Your task to perform on an android device: Search for vegetarian restaurants on Maps Image 0: 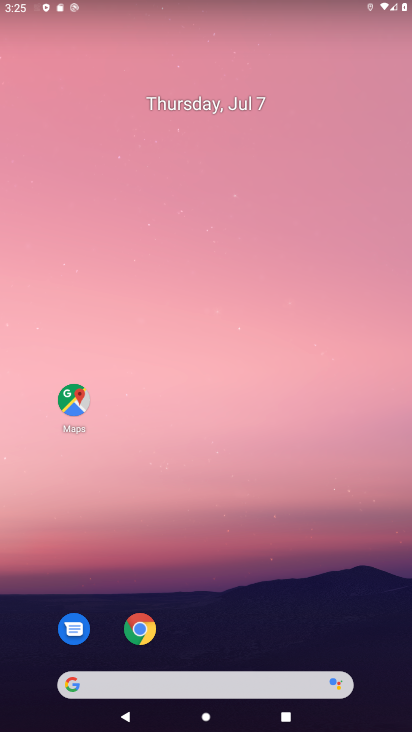
Step 0: press home button
Your task to perform on an android device: Search for vegetarian restaurants on Maps Image 1: 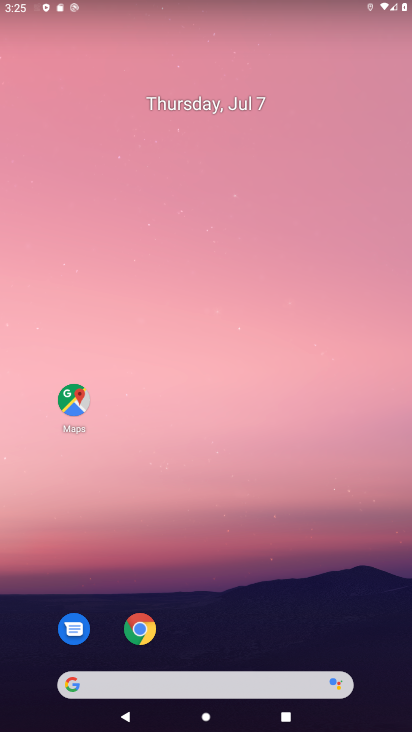
Step 1: drag from (296, 528) to (276, 20)
Your task to perform on an android device: Search for vegetarian restaurants on Maps Image 2: 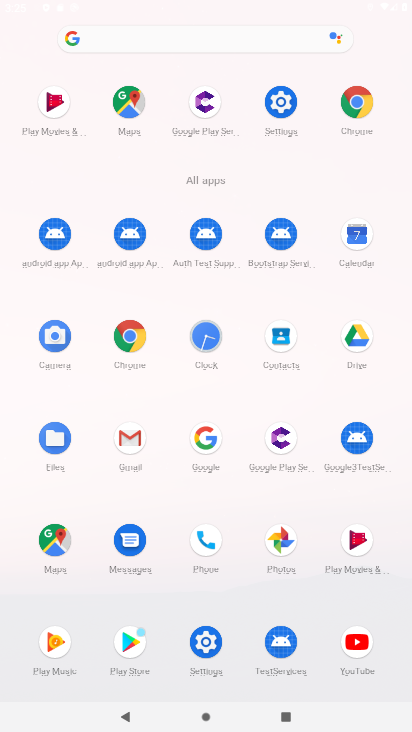
Step 2: click (127, 99)
Your task to perform on an android device: Search for vegetarian restaurants on Maps Image 3: 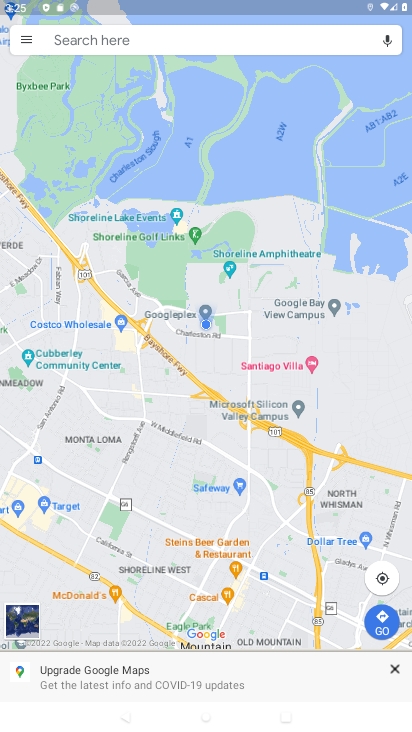
Step 3: click (161, 40)
Your task to perform on an android device: Search for vegetarian restaurants on Maps Image 4: 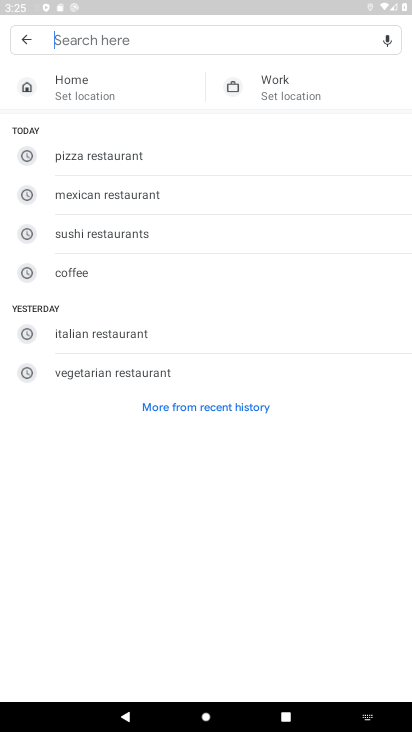
Step 4: click (119, 375)
Your task to perform on an android device: Search for vegetarian restaurants on Maps Image 5: 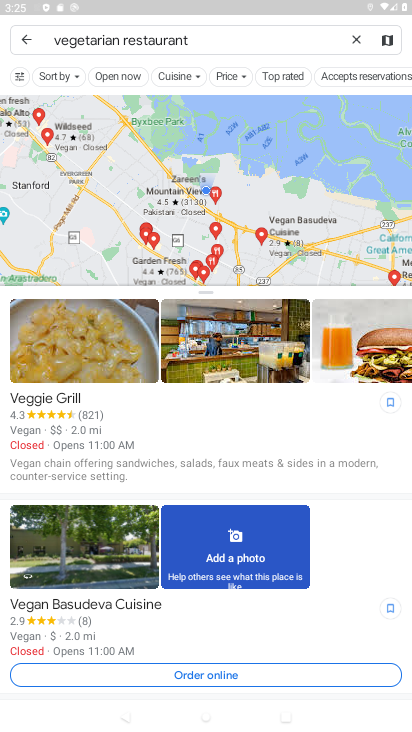
Step 5: task complete